Your task to perform on an android device: turn on the 12-hour format for clock Image 0: 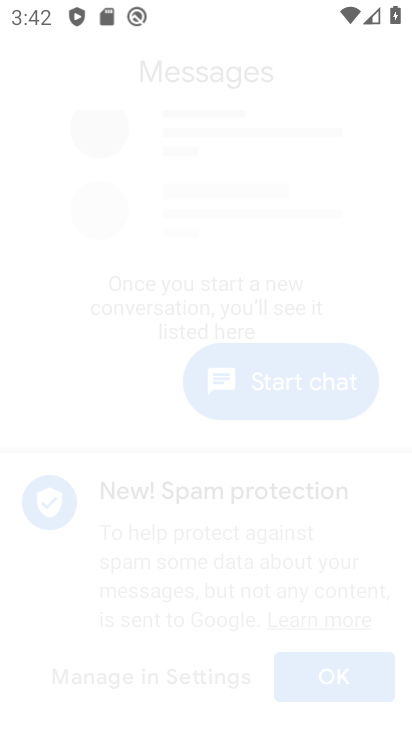
Step 0: drag from (351, 600) to (347, 339)
Your task to perform on an android device: turn on the 12-hour format for clock Image 1: 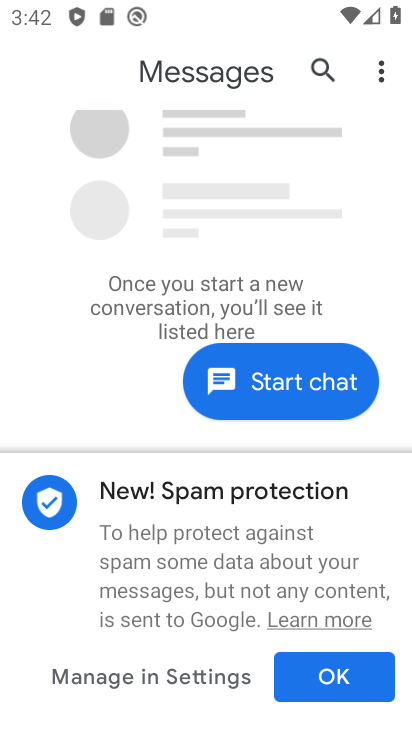
Step 1: press home button
Your task to perform on an android device: turn on the 12-hour format for clock Image 2: 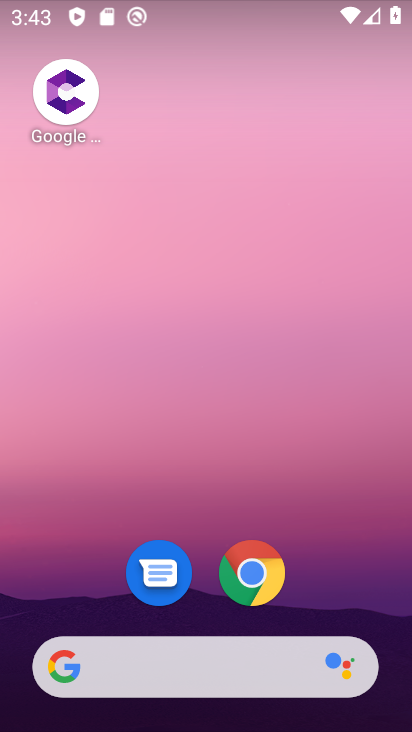
Step 2: drag from (374, 551) to (396, 218)
Your task to perform on an android device: turn on the 12-hour format for clock Image 3: 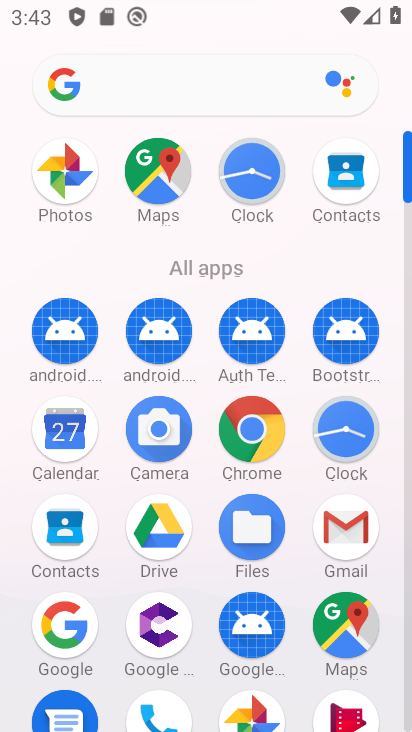
Step 3: click (339, 440)
Your task to perform on an android device: turn on the 12-hour format for clock Image 4: 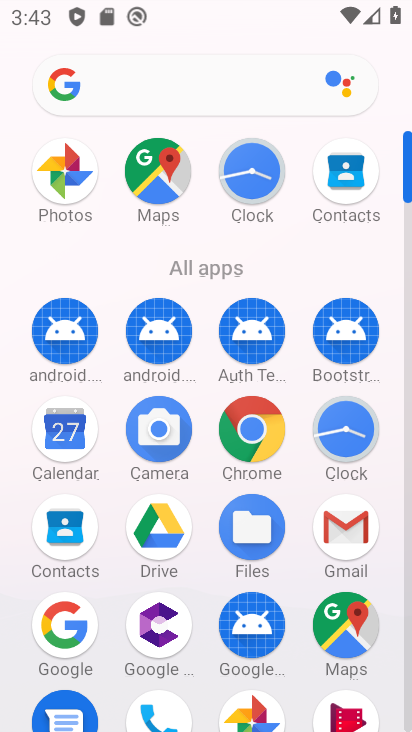
Step 4: click (339, 440)
Your task to perform on an android device: turn on the 12-hour format for clock Image 5: 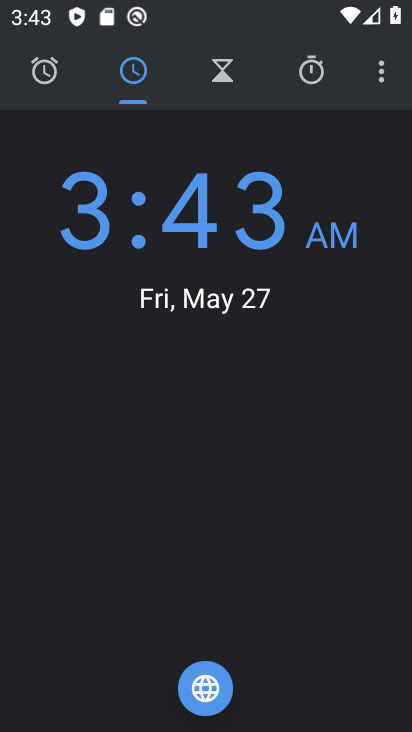
Step 5: click (379, 77)
Your task to perform on an android device: turn on the 12-hour format for clock Image 6: 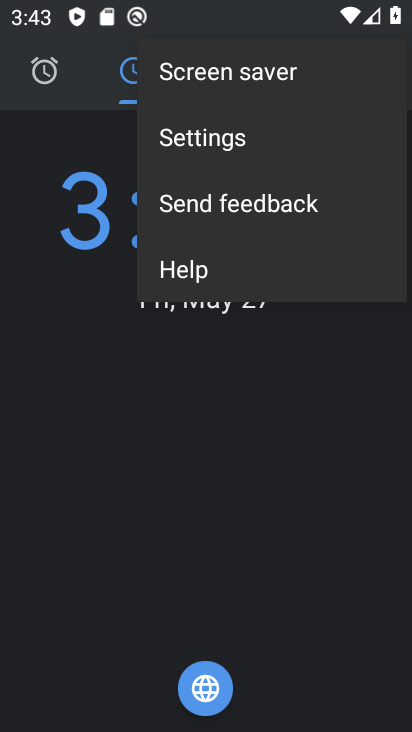
Step 6: click (283, 138)
Your task to perform on an android device: turn on the 12-hour format for clock Image 7: 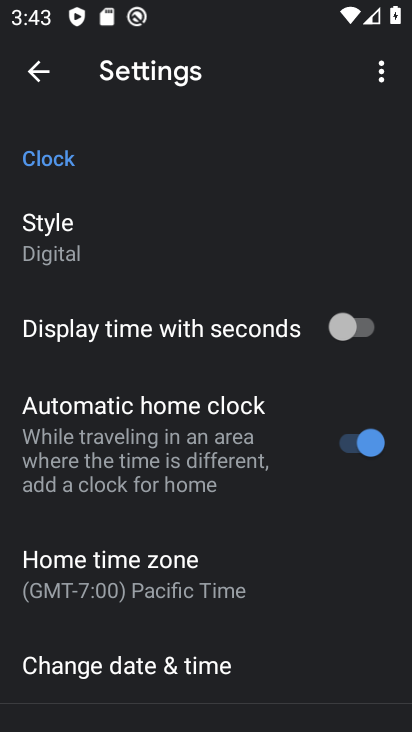
Step 7: click (149, 681)
Your task to perform on an android device: turn on the 12-hour format for clock Image 8: 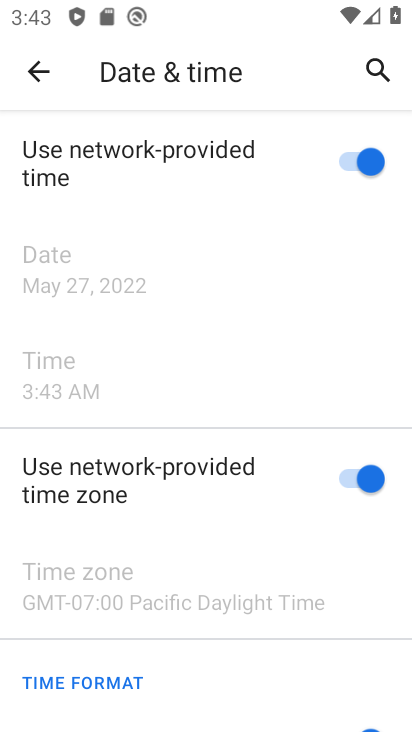
Step 8: drag from (321, 688) to (330, 465)
Your task to perform on an android device: turn on the 12-hour format for clock Image 9: 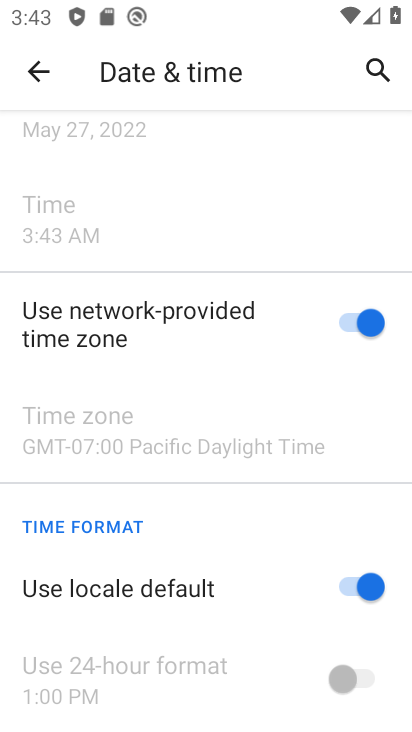
Step 9: click (374, 597)
Your task to perform on an android device: turn on the 12-hour format for clock Image 10: 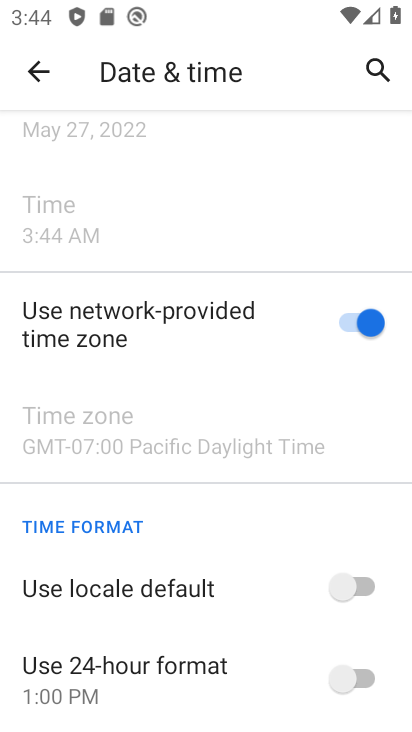
Step 10: task complete